Your task to perform on an android device: Open Google Image 0: 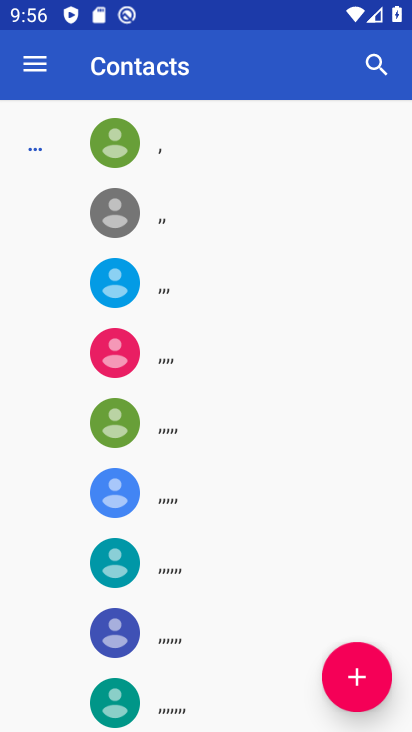
Step 0: press home button
Your task to perform on an android device: Open Google Image 1: 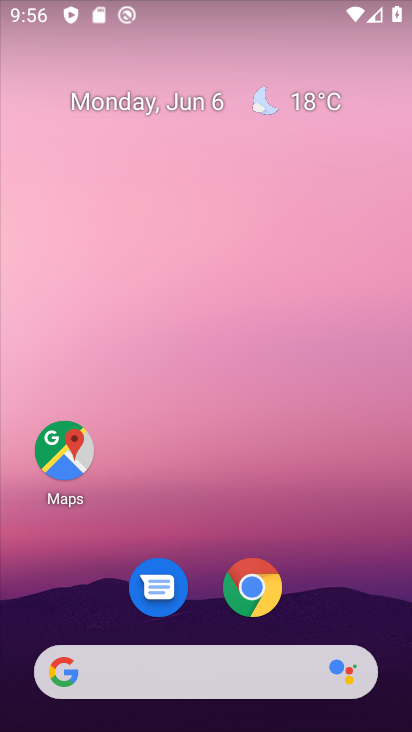
Step 1: drag from (147, 584) to (178, 332)
Your task to perform on an android device: Open Google Image 2: 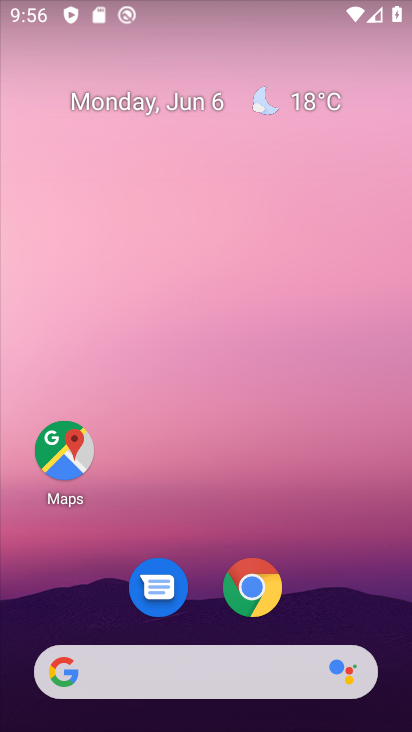
Step 2: drag from (240, 502) to (242, 272)
Your task to perform on an android device: Open Google Image 3: 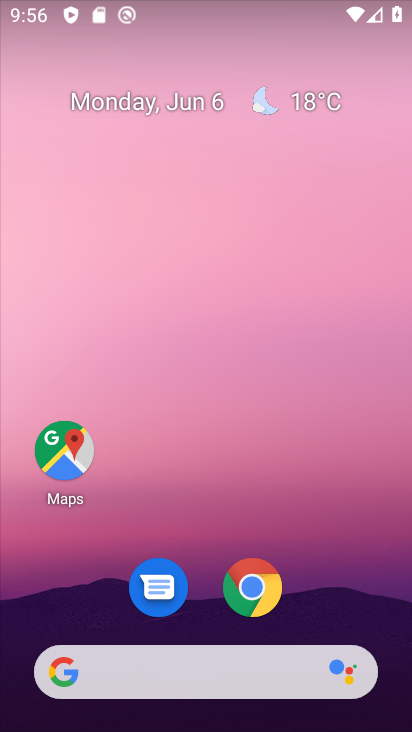
Step 3: drag from (214, 594) to (201, 215)
Your task to perform on an android device: Open Google Image 4: 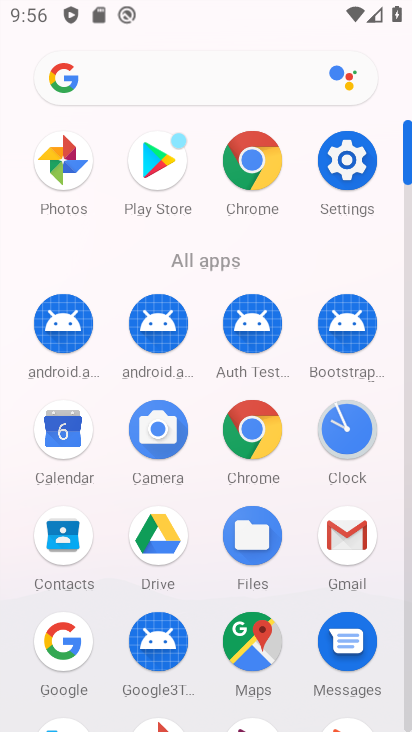
Step 4: click (41, 639)
Your task to perform on an android device: Open Google Image 5: 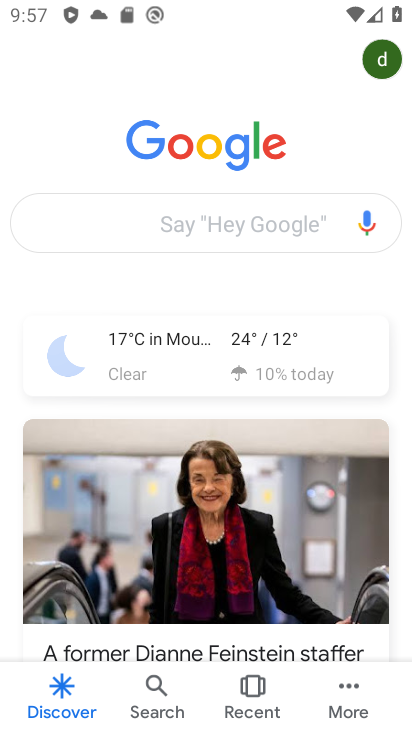
Step 5: click (199, 224)
Your task to perform on an android device: Open Google Image 6: 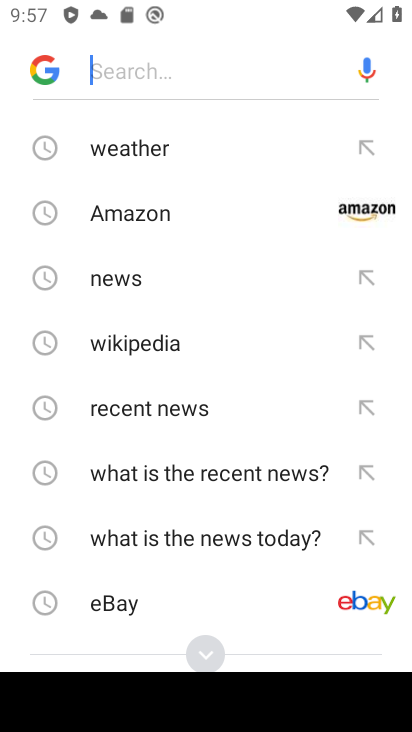
Step 6: task complete